Your task to perform on an android device: open app "Spotify" (install if not already installed) Image 0: 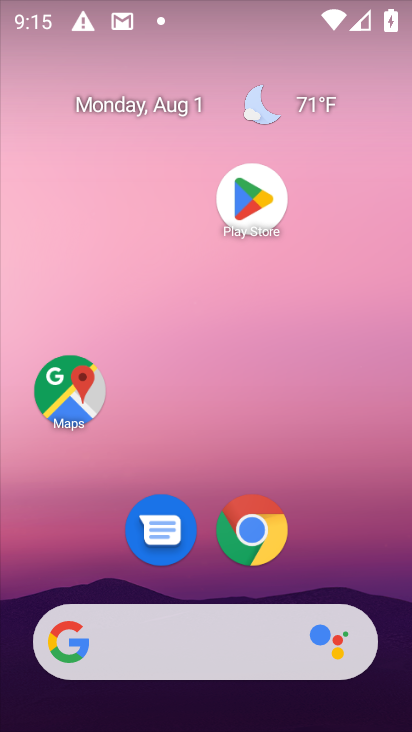
Step 0: click (260, 205)
Your task to perform on an android device: open app "Spotify" (install if not already installed) Image 1: 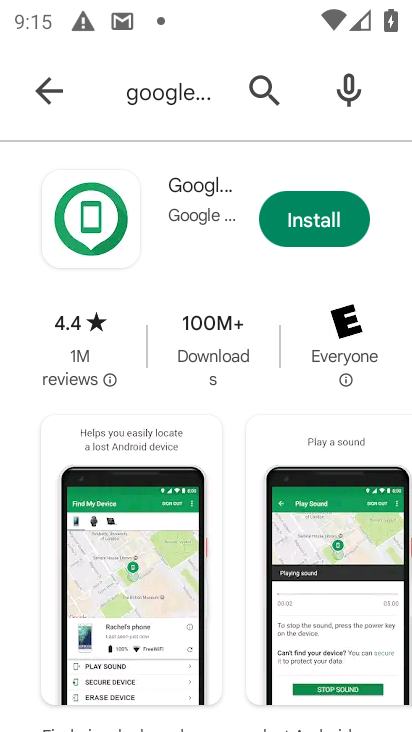
Step 1: click (263, 88)
Your task to perform on an android device: open app "Spotify" (install if not already installed) Image 2: 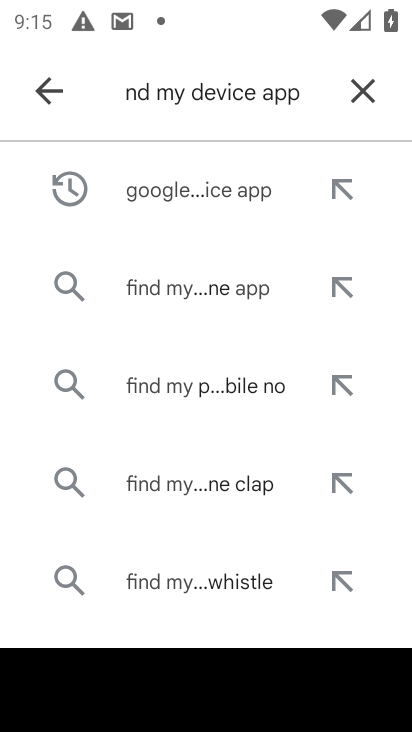
Step 2: click (365, 90)
Your task to perform on an android device: open app "Spotify" (install if not already installed) Image 3: 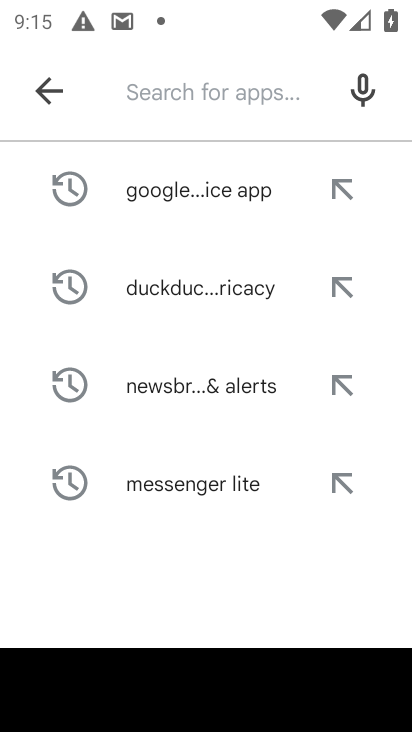
Step 3: type "Spotify"
Your task to perform on an android device: open app "Spotify" (install if not already installed) Image 4: 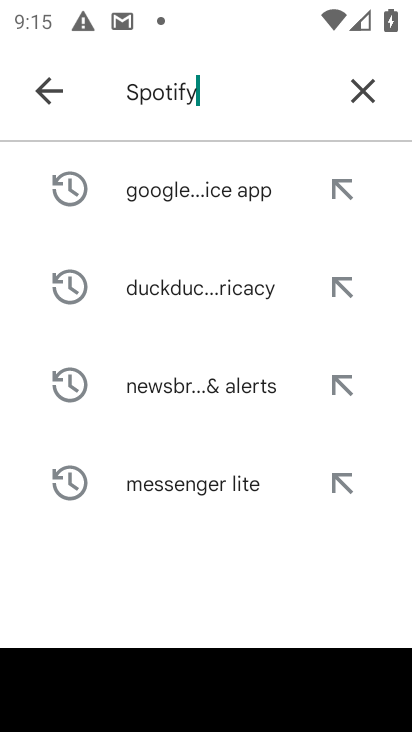
Step 4: type ""
Your task to perform on an android device: open app "Spotify" (install if not already installed) Image 5: 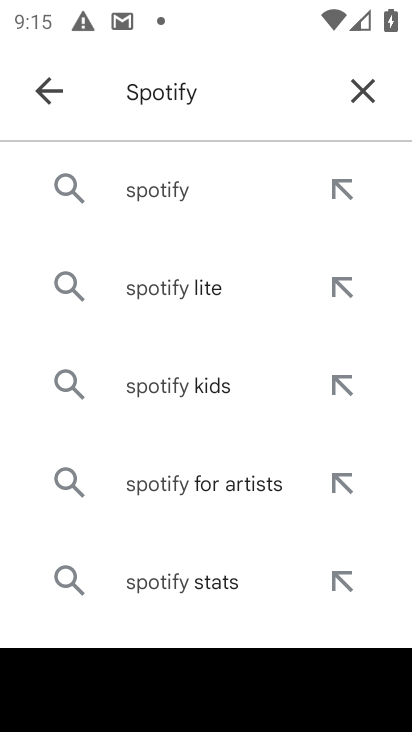
Step 5: click (250, 196)
Your task to perform on an android device: open app "Spotify" (install if not already installed) Image 6: 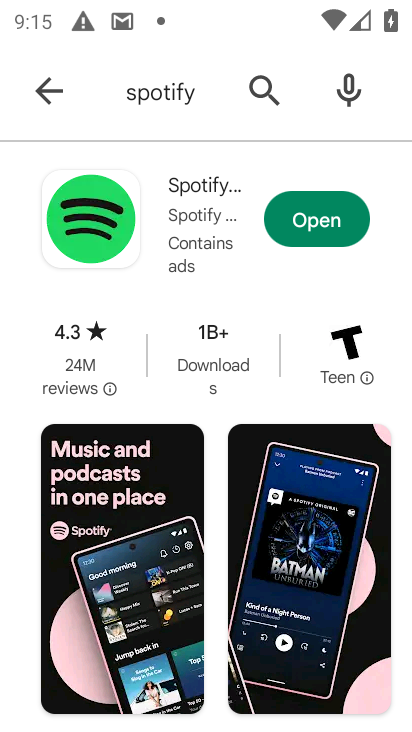
Step 6: click (294, 227)
Your task to perform on an android device: open app "Spotify" (install if not already installed) Image 7: 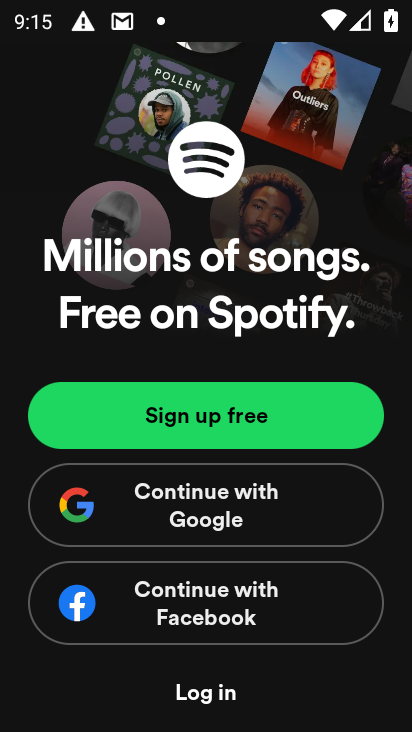
Step 7: task complete